Your task to perform on an android device: Open Youtube and go to "Your channel" Image 0: 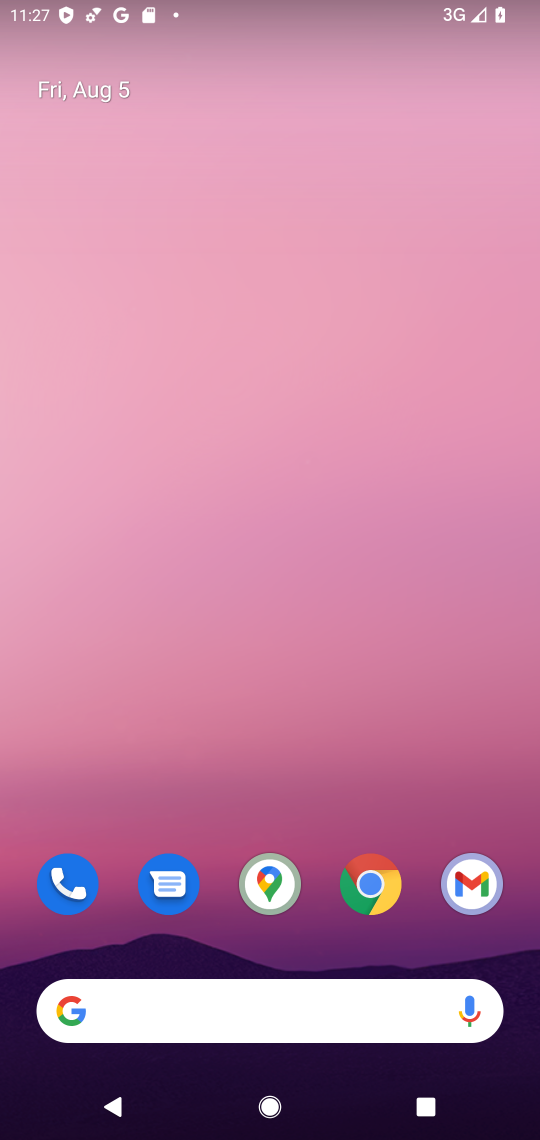
Step 0: drag from (237, 789) to (283, 187)
Your task to perform on an android device: Open Youtube and go to "Your channel" Image 1: 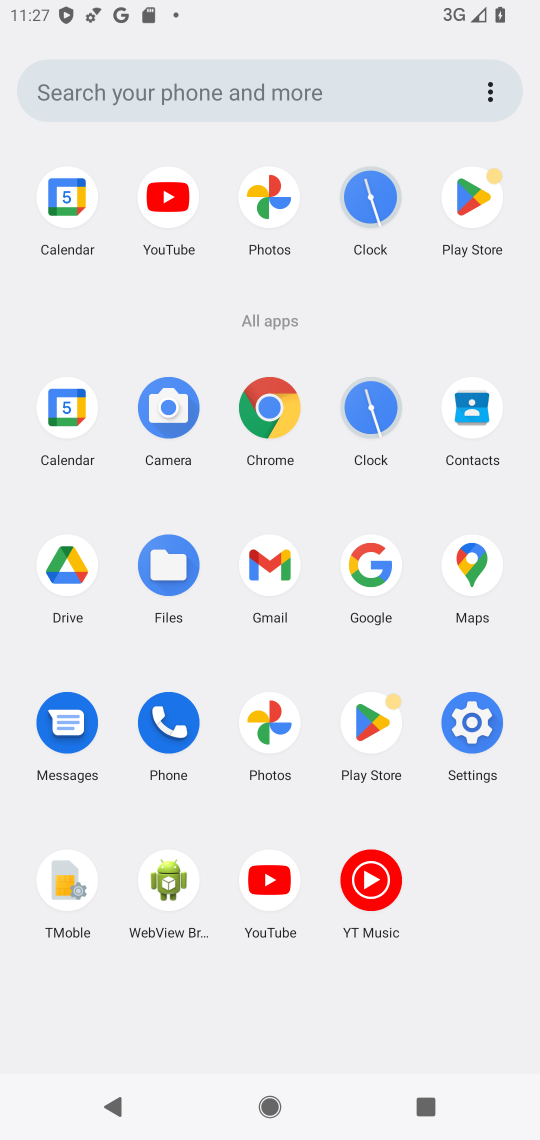
Step 1: click (168, 208)
Your task to perform on an android device: Open Youtube and go to "Your channel" Image 2: 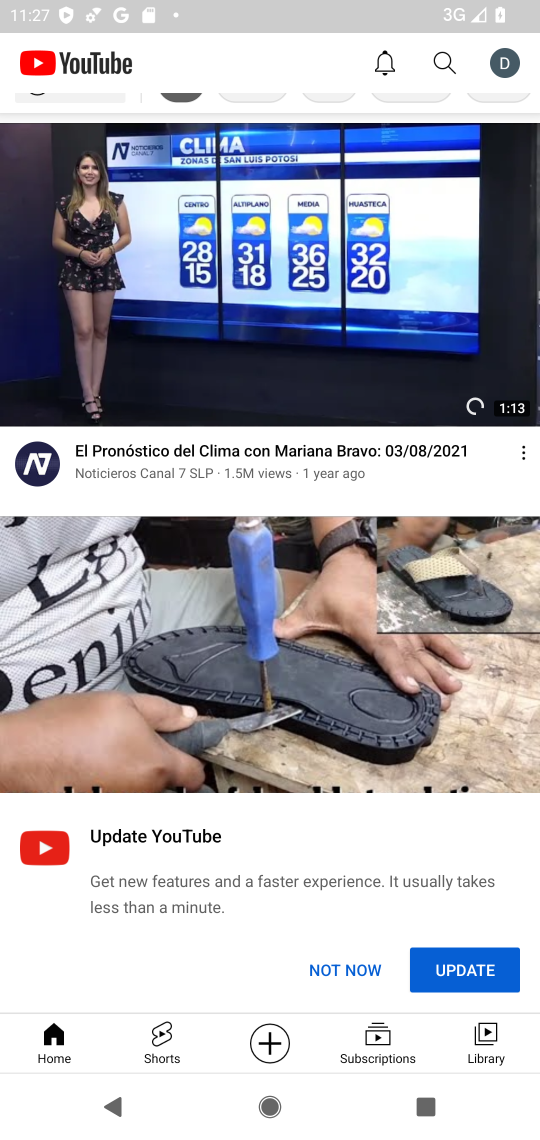
Step 2: click (510, 67)
Your task to perform on an android device: Open Youtube and go to "Your channel" Image 3: 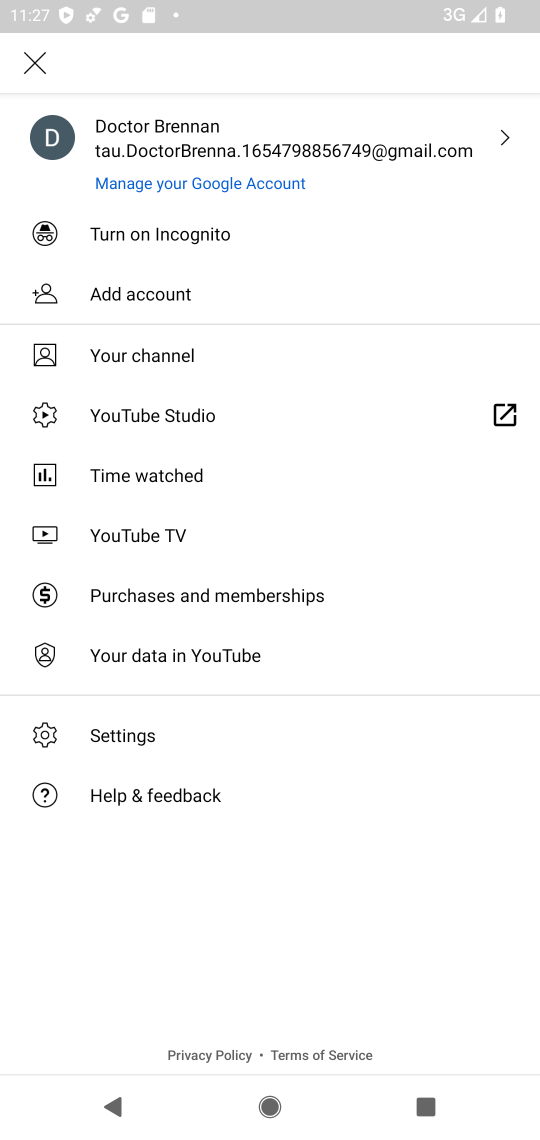
Step 3: click (157, 364)
Your task to perform on an android device: Open Youtube and go to "Your channel" Image 4: 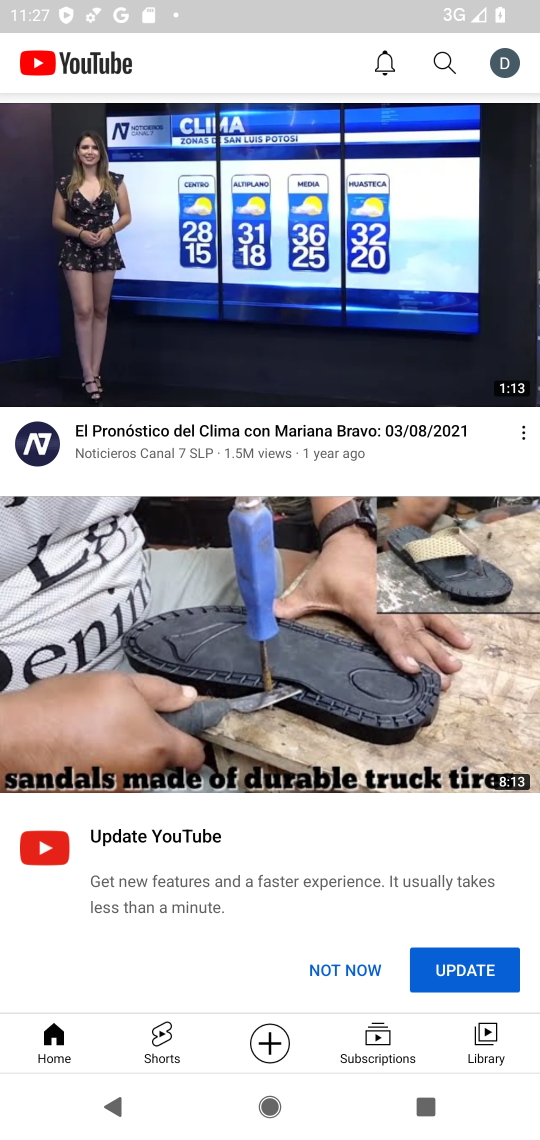
Step 4: task complete